Your task to perform on an android device: Open the calendar app, open the side menu, and click the "Day" option Image 0: 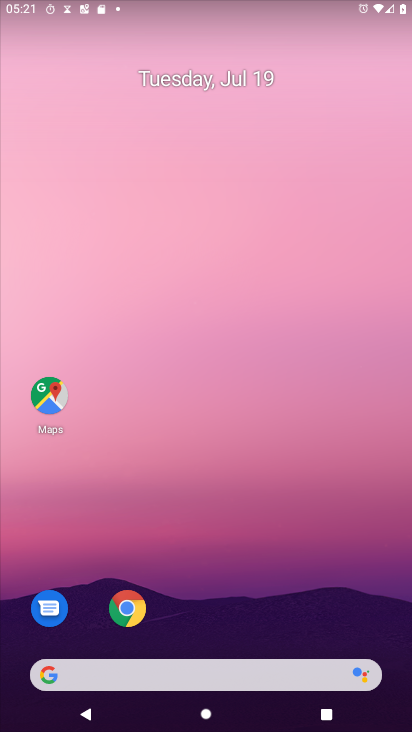
Step 0: drag from (203, 679) to (292, 203)
Your task to perform on an android device: Open the calendar app, open the side menu, and click the "Day" option Image 1: 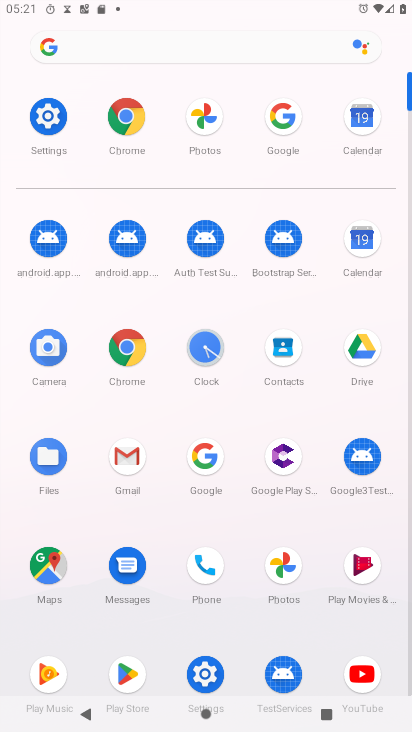
Step 1: click (363, 240)
Your task to perform on an android device: Open the calendar app, open the side menu, and click the "Day" option Image 2: 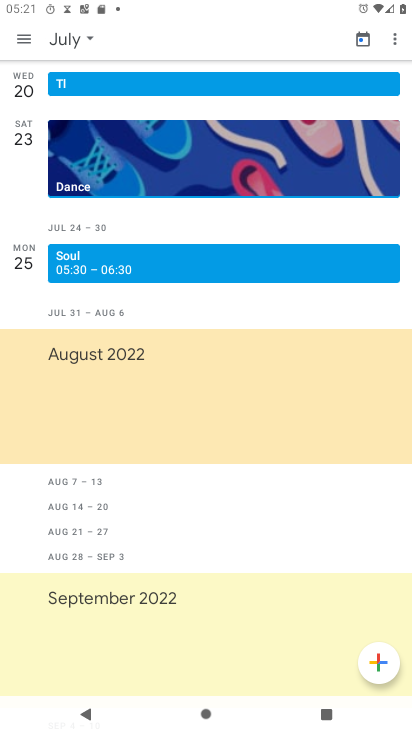
Step 2: click (22, 41)
Your task to perform on an android device: Open the calendar app, open the side menu, and click the "Day" option Image 3: 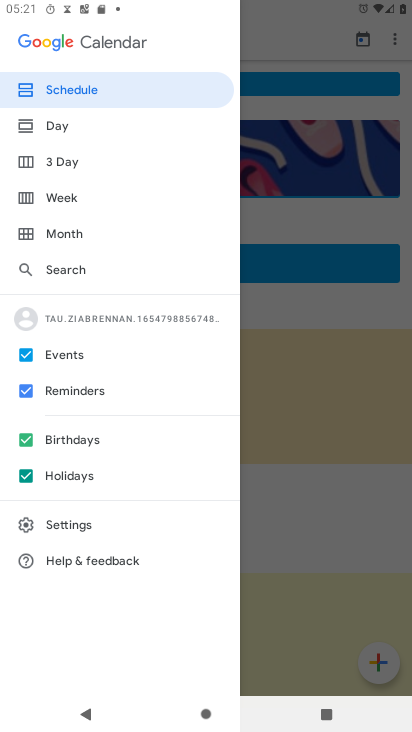
Step 3: click (54, 124)
Your task to perform on an android device: Open the calendar app, open the side menu, and click the "Day" option Image 4: 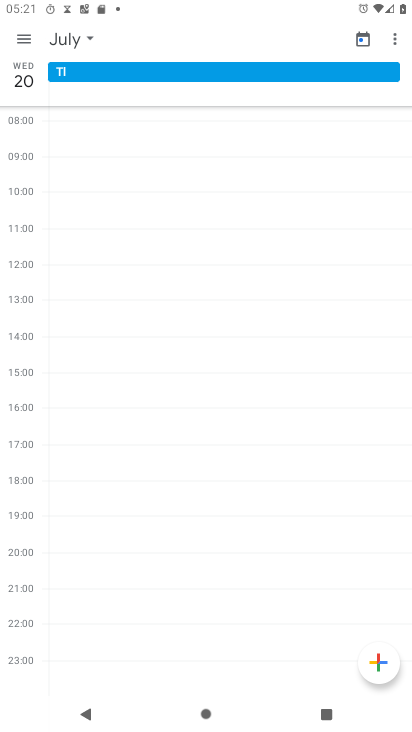
Step 4: task complete